Your task to perform on an android device: open app "YouTube Kids" (install if not already installed) and go to login screen Image 0: 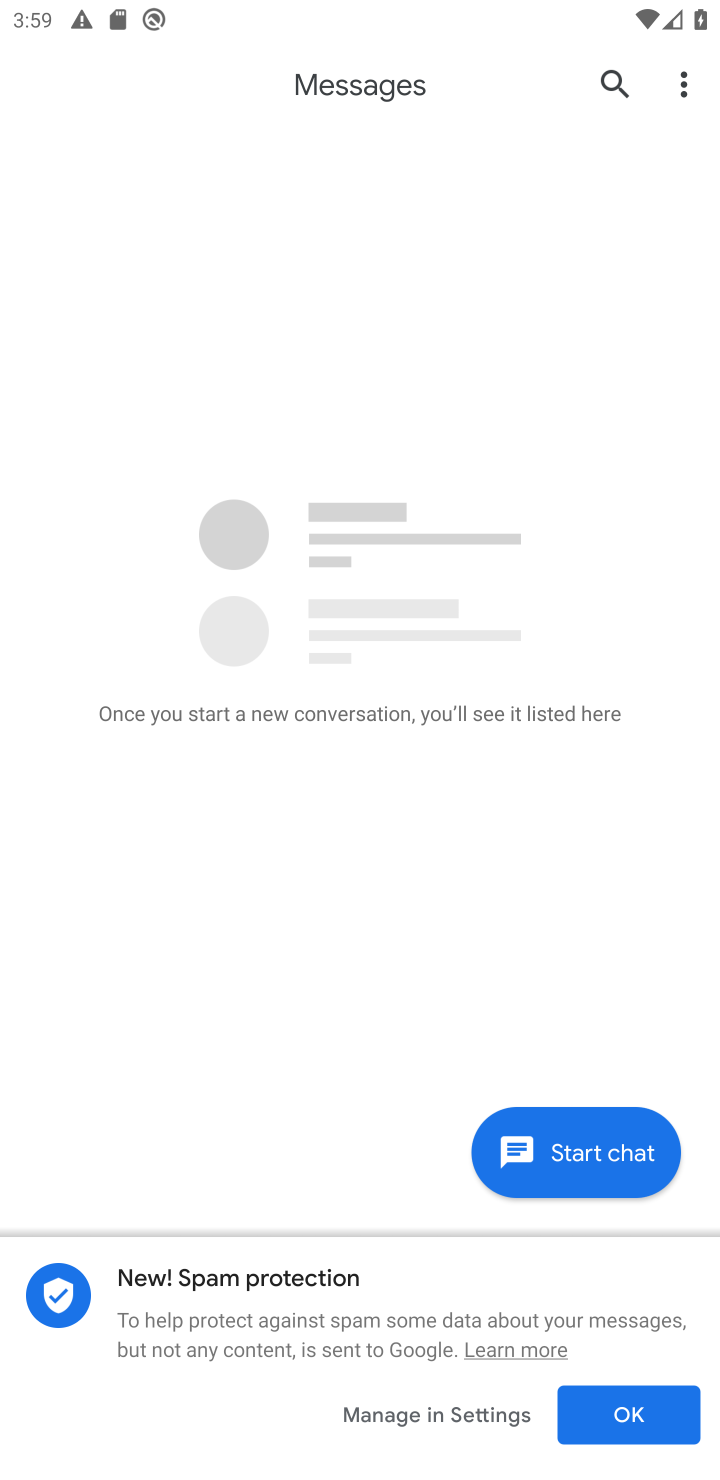
Step 0: press home button
Your task to perform on an android device: open app "YouTube Kids" (install if not already installed) and go to login screen Image 1: 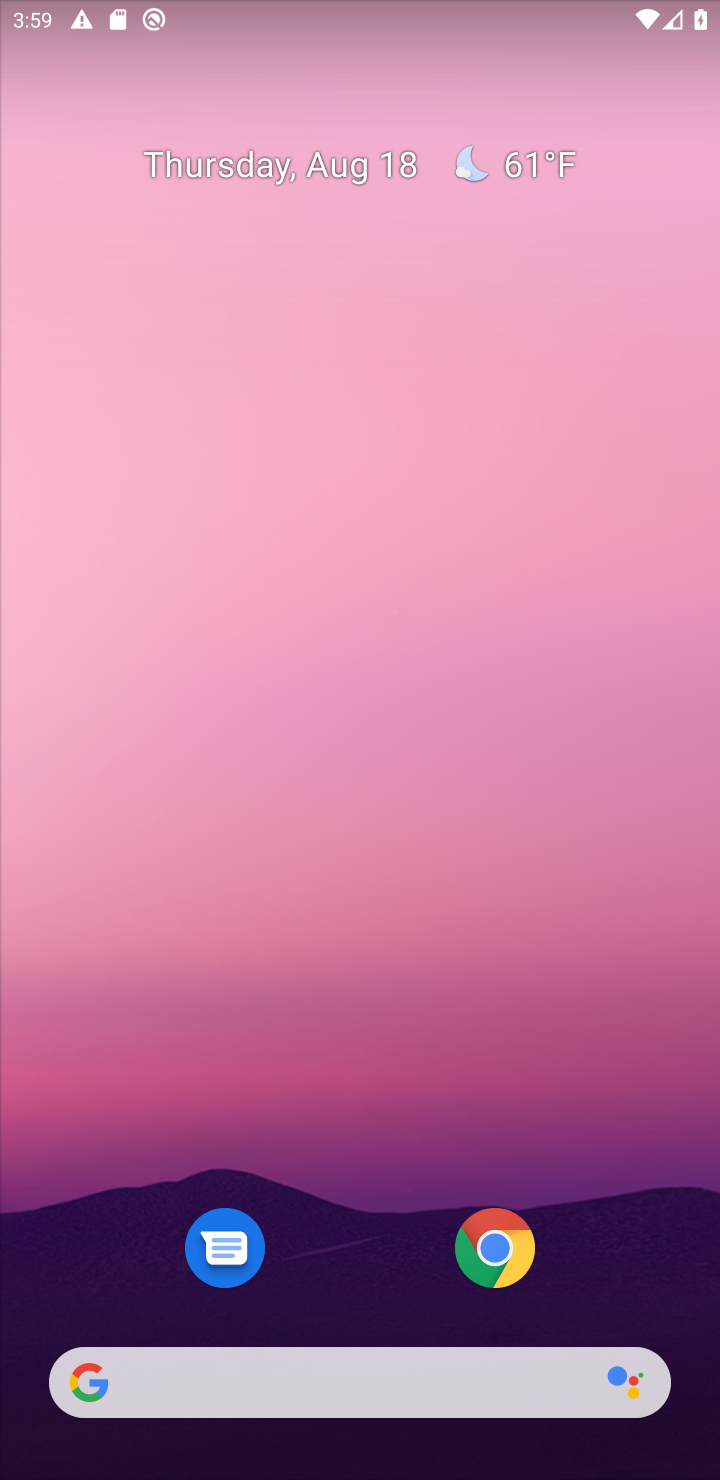
Step 1: drag from (367, 1331) to (376, 328)
Your task to perform on an android device: open app "YouTube Kids" (install if not already installed) and go to login screen Image 2: 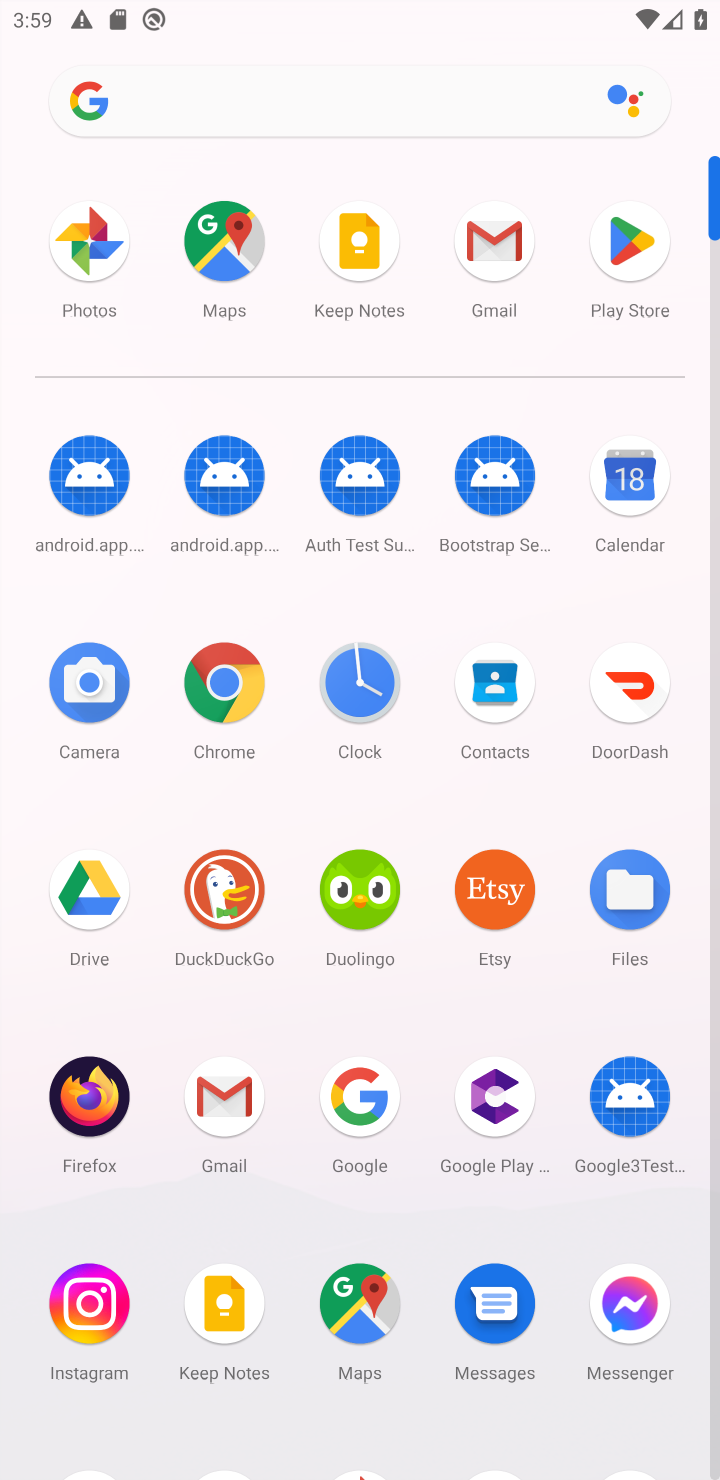
Step 2: click (622, 238)
Your task to perform on an android device: open app "YouTube Kids" (install if not already installed) and go to login screen Image 3: 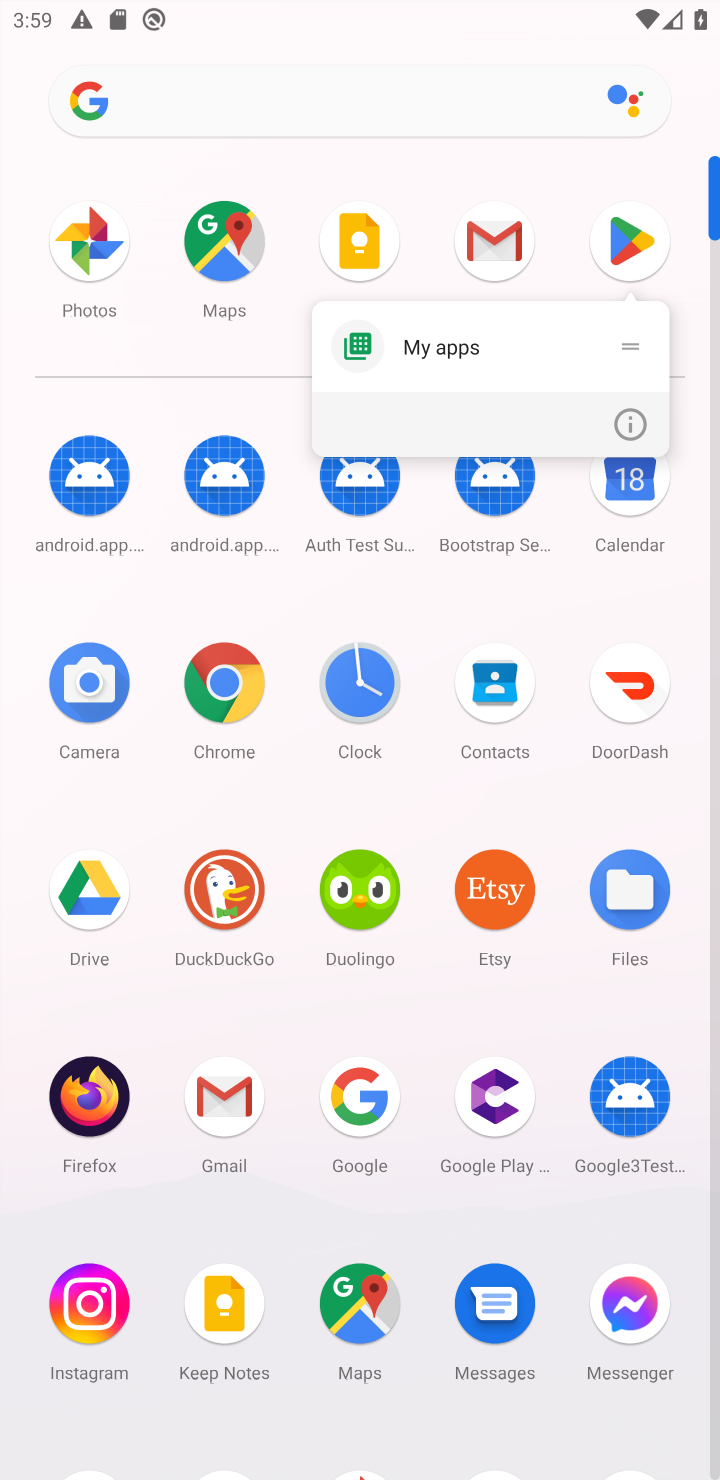
Step 3: click (625, 228)
Your task to perform on an android device: open app "YouTube Kids" (install if not already installed) and go to login screen Image 4: 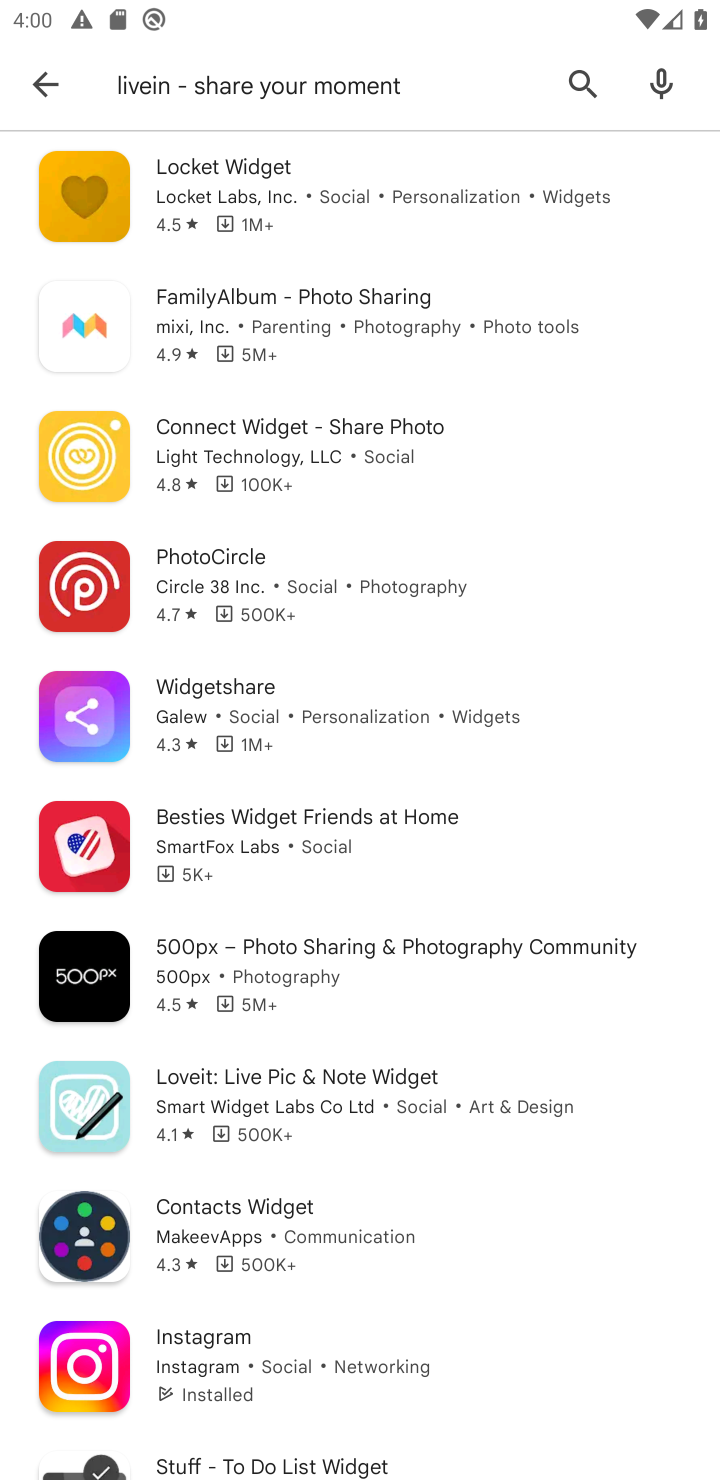
Step 4: click (574, 70)
Your task to perform on an android device: open app "YouTube Kids" (install if not already installed) and go to login screen Image 5: 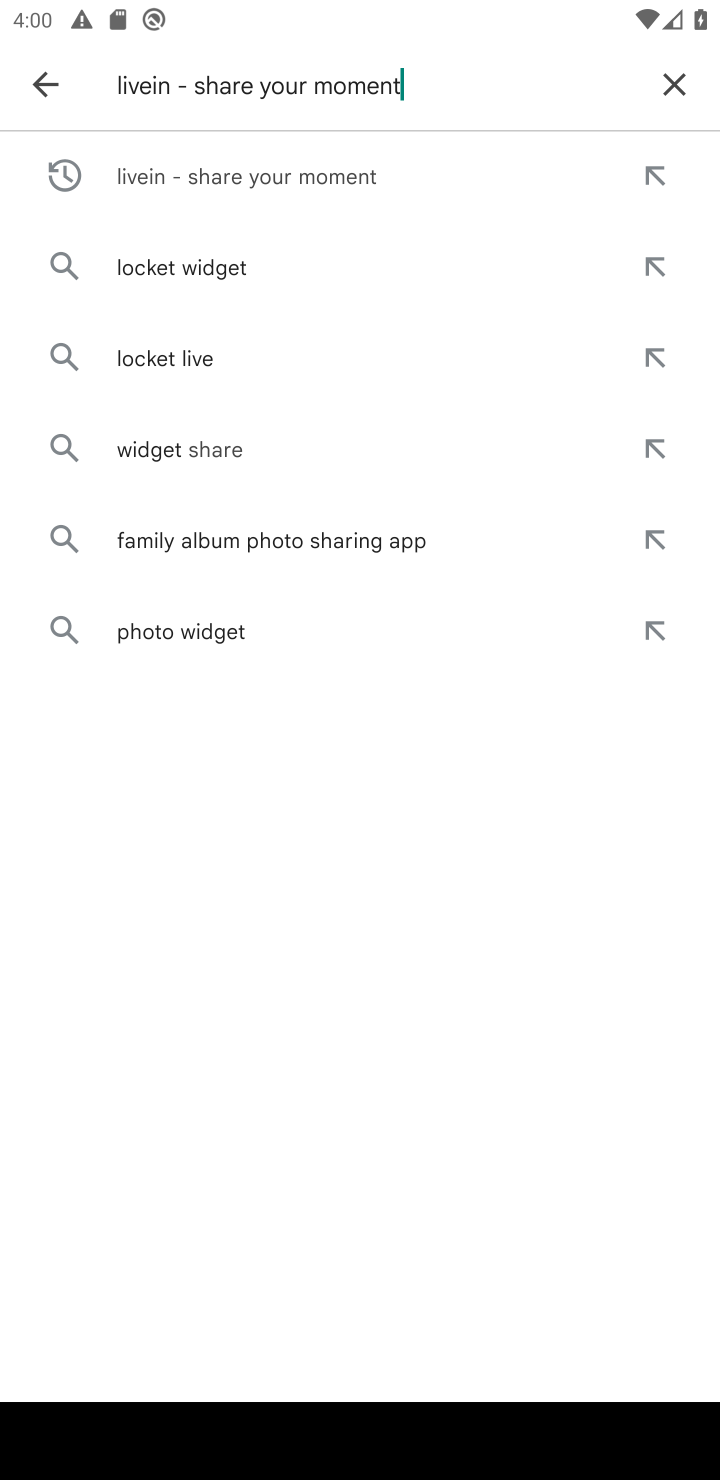
Step 5: click (667, 79)
Your task to perform on an android device: open app "YouTube Kids" (install if not already installed) and go to login screen Image 6: 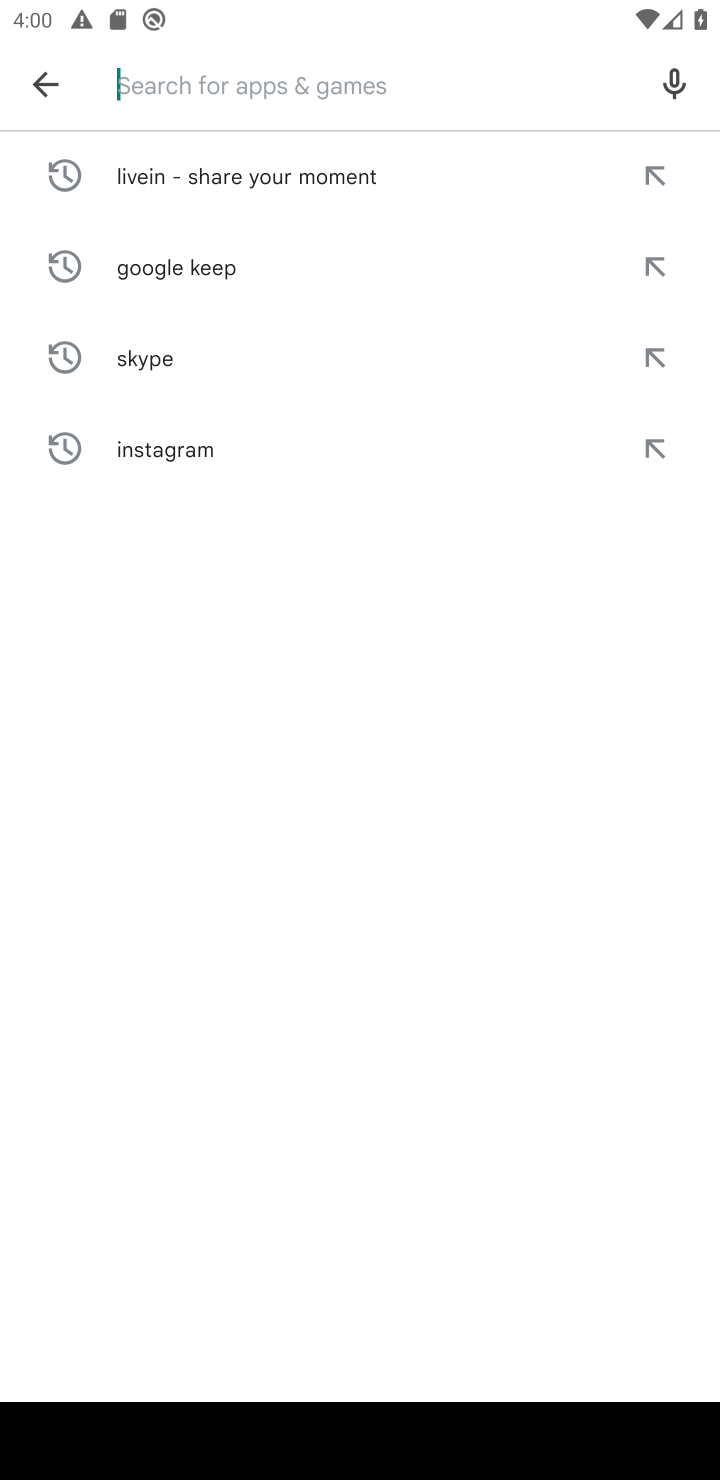
Step 6: type "YouTube Kids"
Your task to perform on an android device: open app "YouTube Kids" (install if not already installed) and go to login screen Image 7: 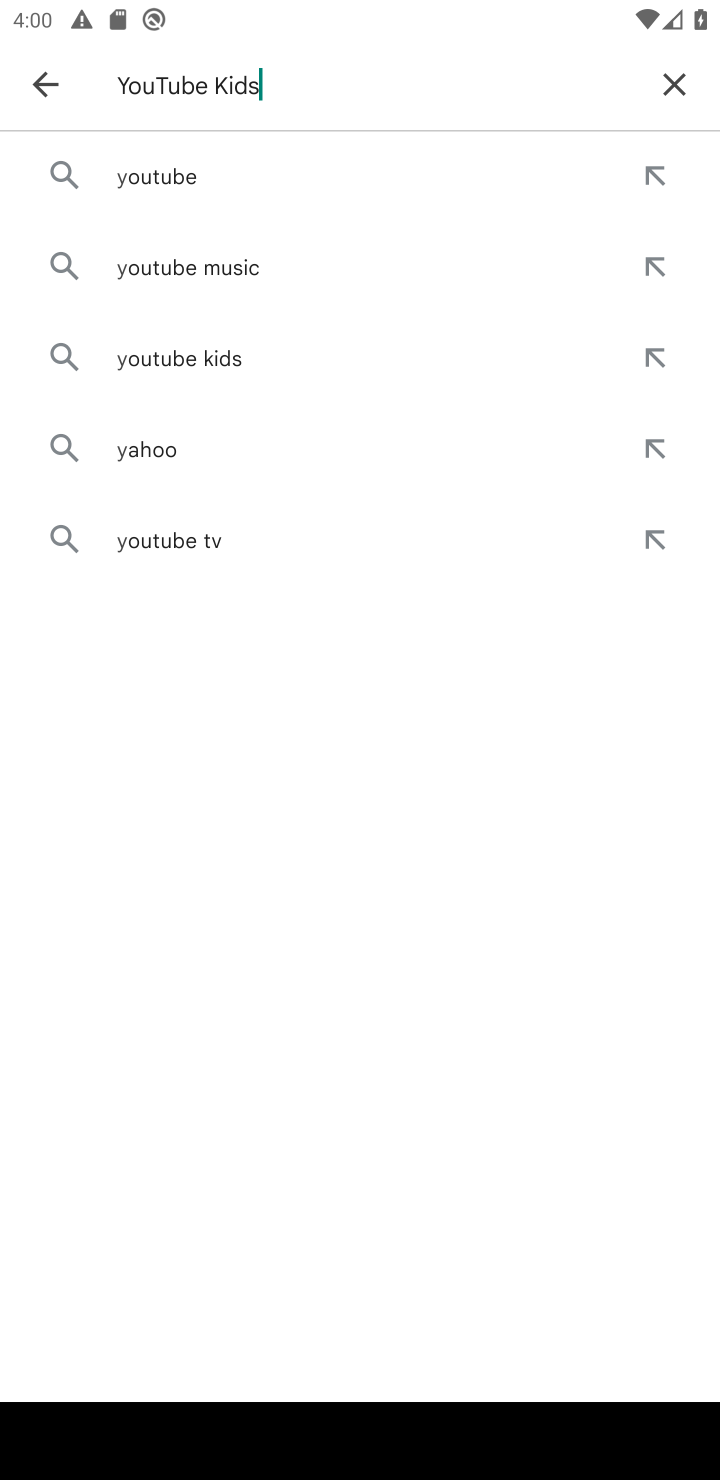
Step 7: type ""
Your task to perform on an android device: open app "YouTube Kids" (install if not already installed) and go to login screen Image 8: 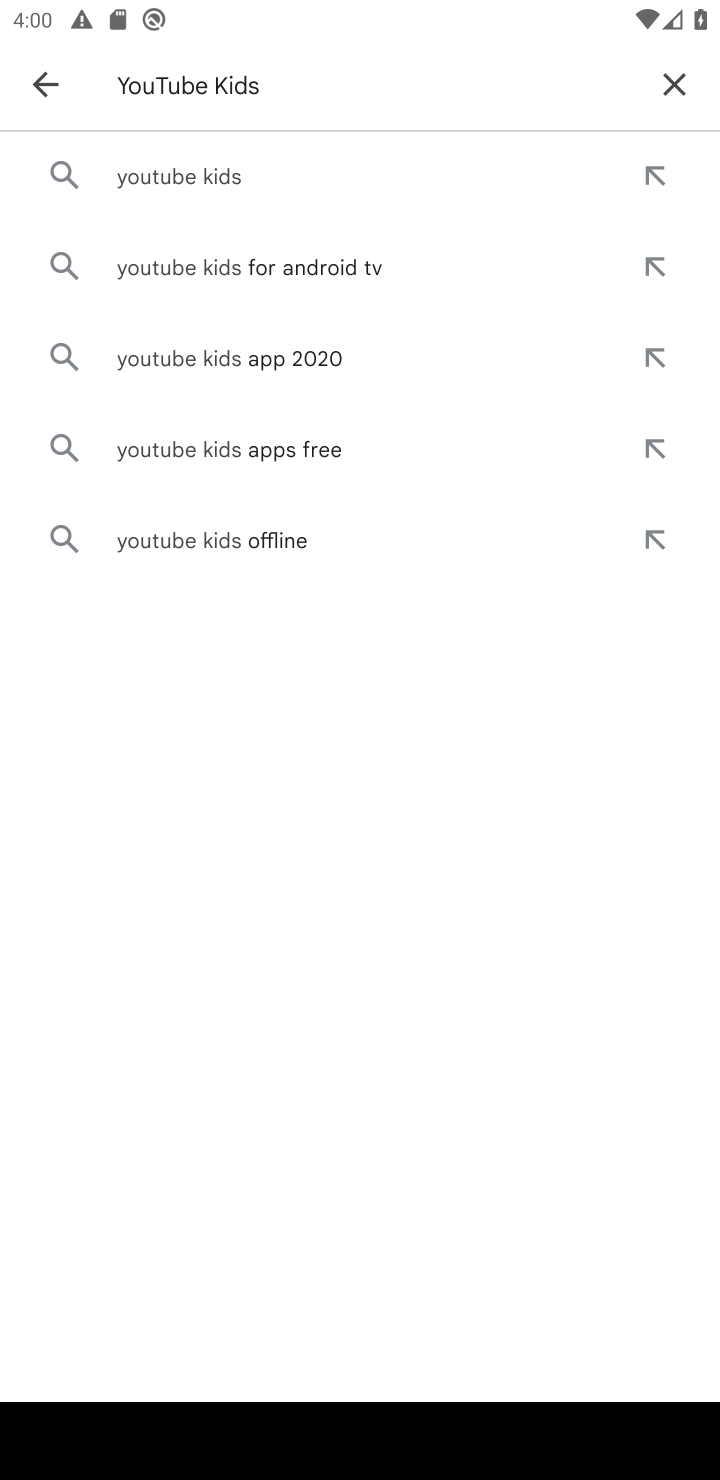
Step 8: click (210, 173)
Your task to perform on an android device: open app "YouTube Kids" (install if not already installed) and go to login screen Image 9: 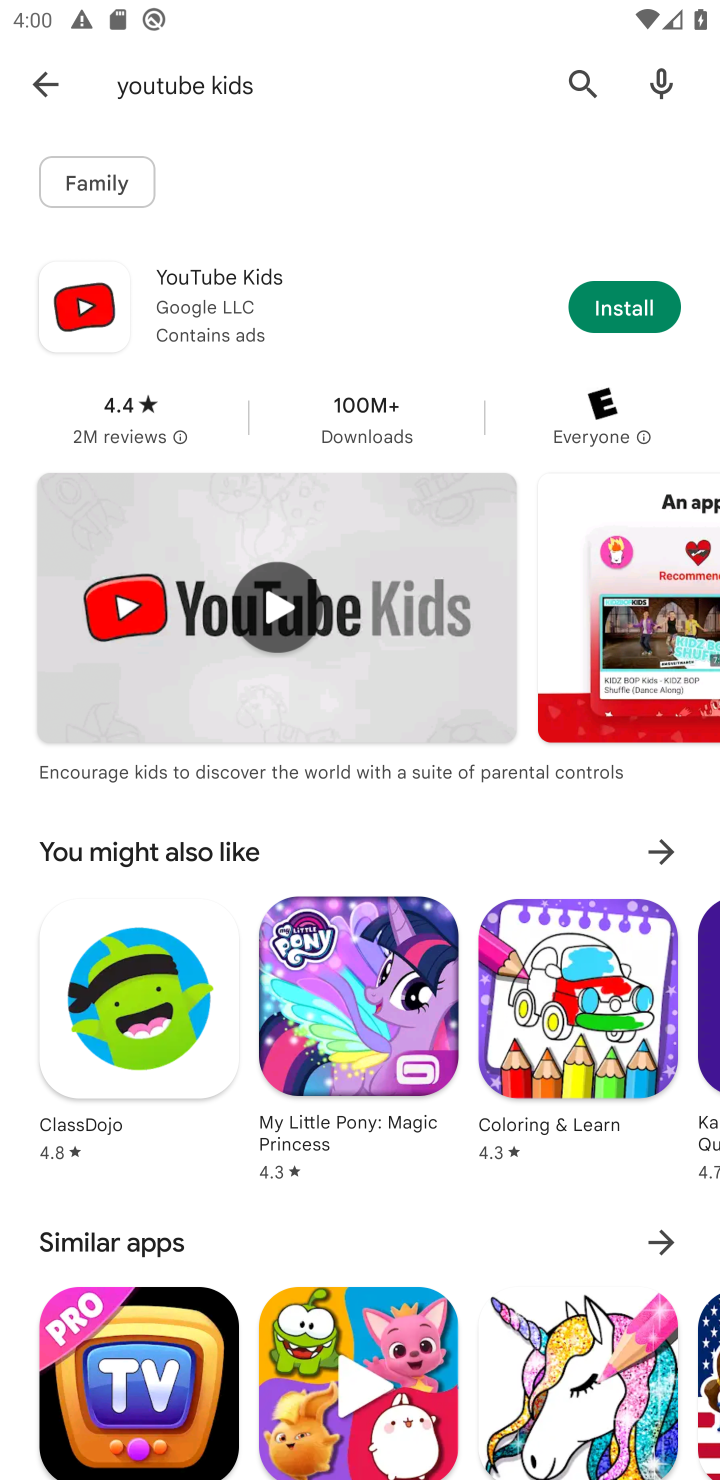
Step 9: click (628, 299)
Your task to perform on an android device: open app "YouTube Kids" (install if not already installed) and go to login screen Image 10: 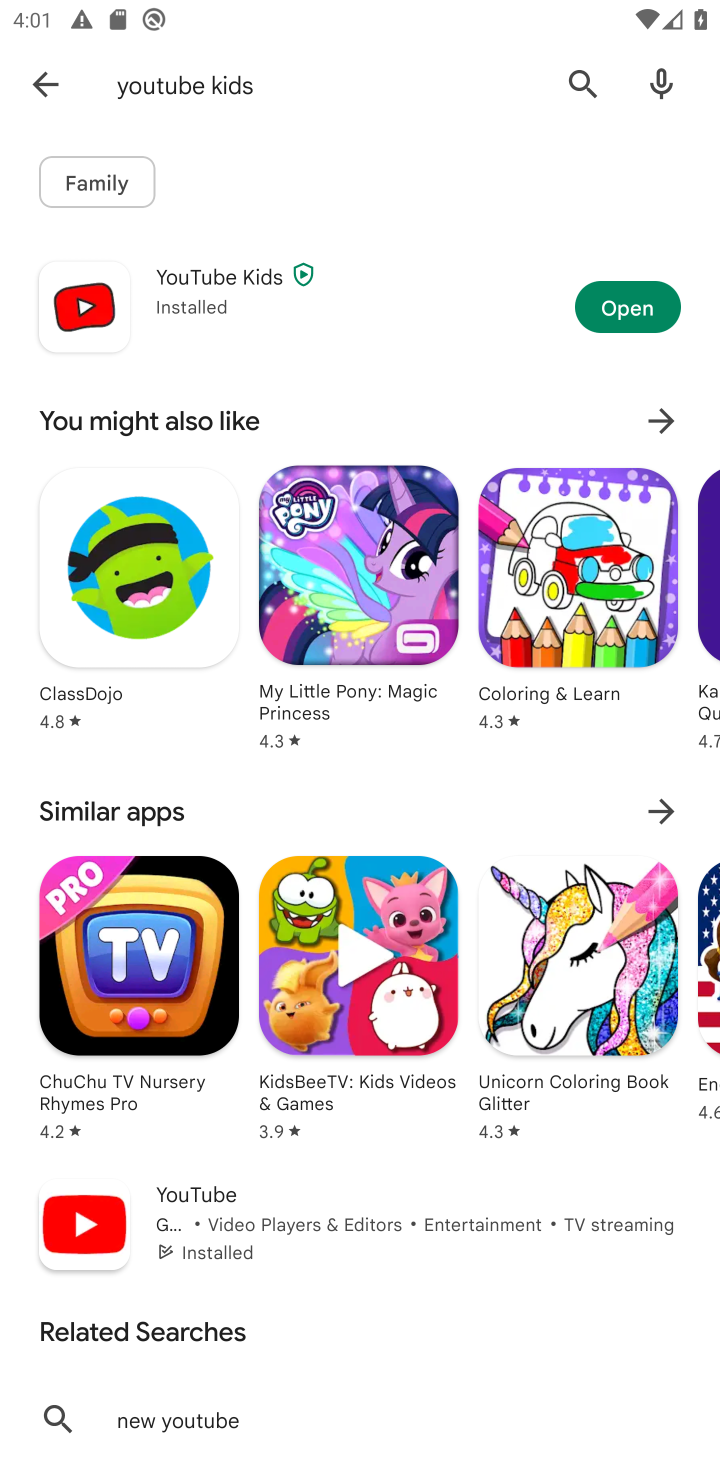
Step 10: click (620, 294)
Your task to perform on an android device: open app "YouTube Kids" (install if not already installed) and go to login screen Image 11: 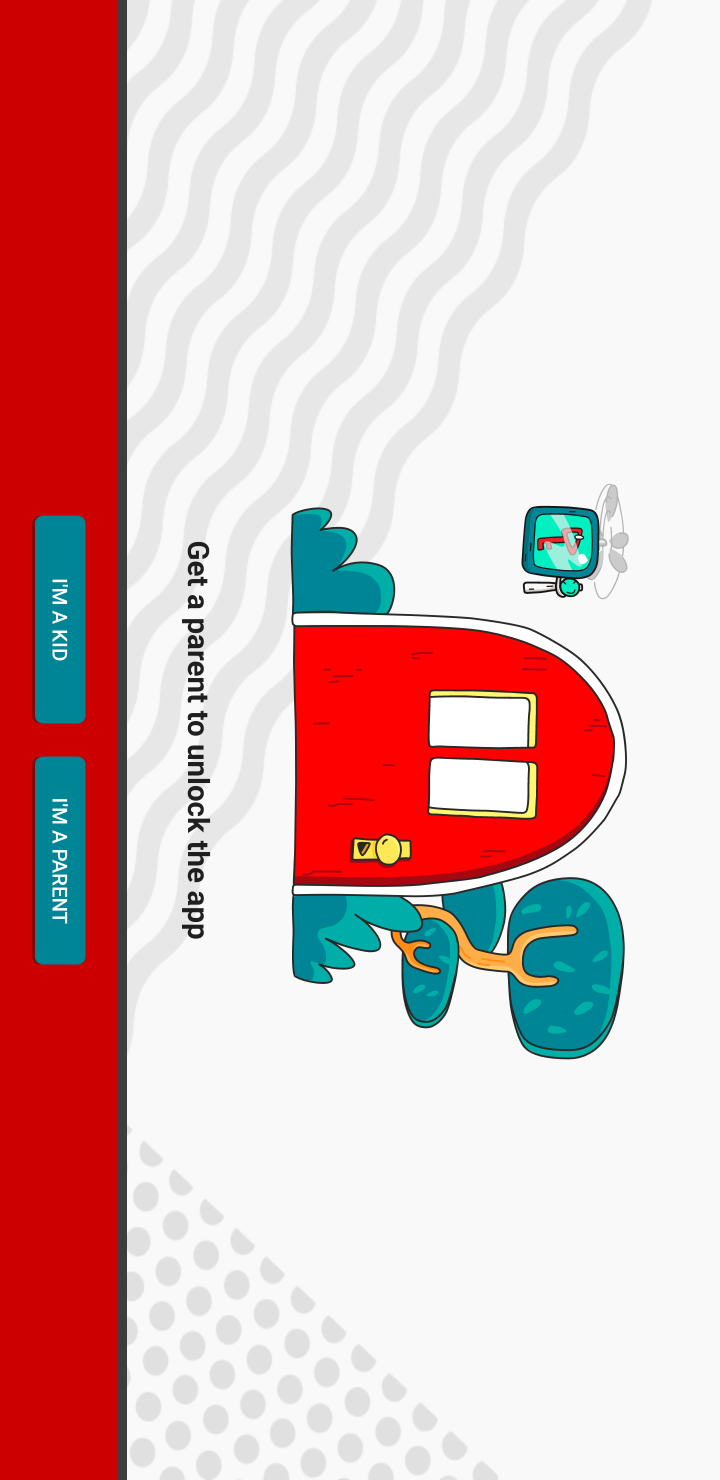
Step 11: task complete